Your task to perform on an android device: Show me recent news Image 0: 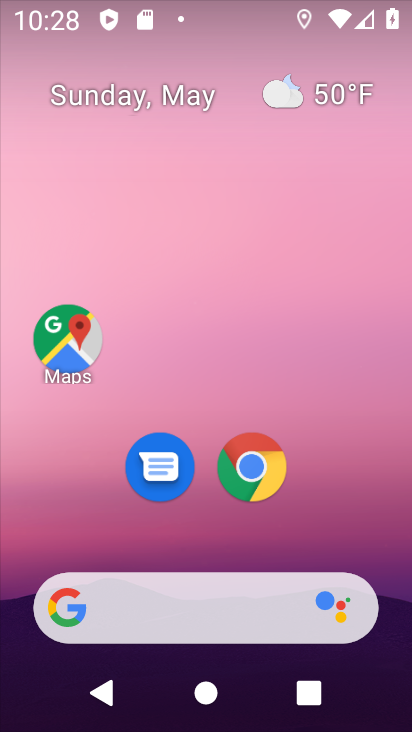
Step 0: drag from (217, 528) to (179, 216)
Your task to perform on an android device: Show me recent news Image 1: 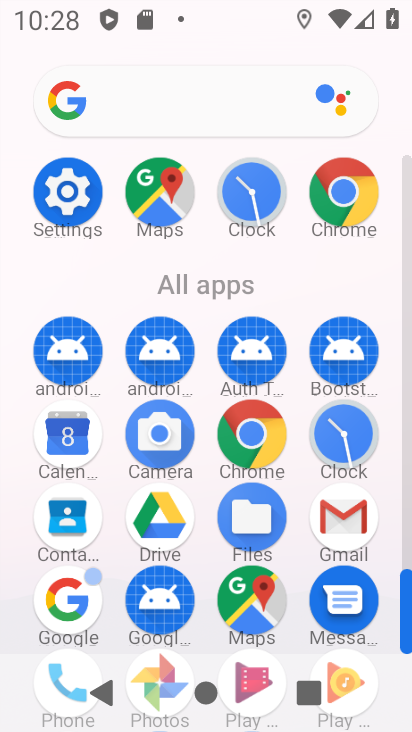
Step 1: click (73, 584)
Your task to perform on an android device: Show me recent news Image 2: 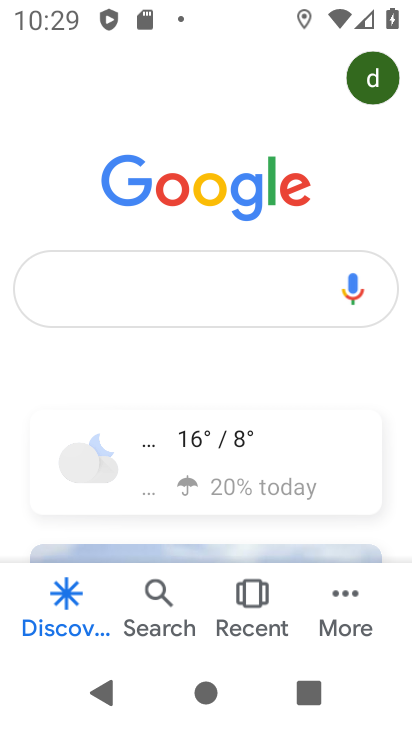
Step 2: click (163, 286)
Your task to perform on an android device: Show me recent news Image 3: 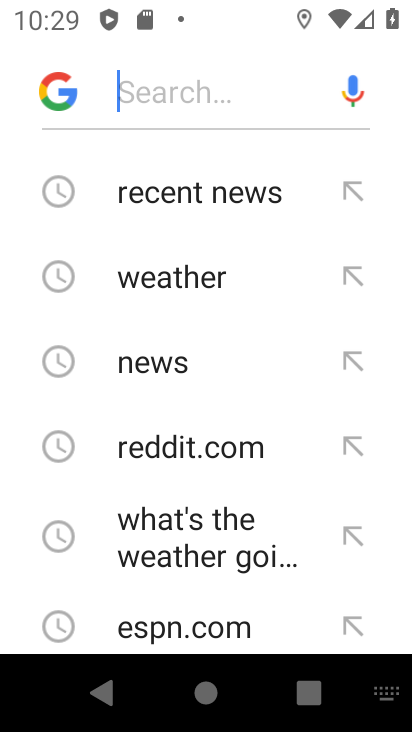
Step 3: click (203, 205)
Your task to perform on an android device: Show me recent news Image 4: 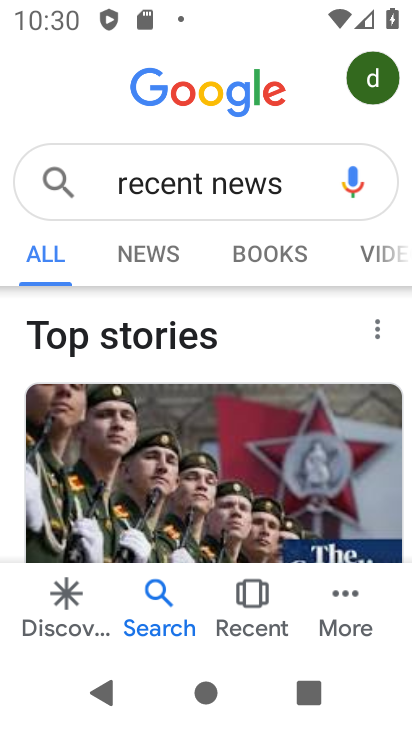
Step 4: task complete